Your task to perform on an android device: turn on wifi Image 0: 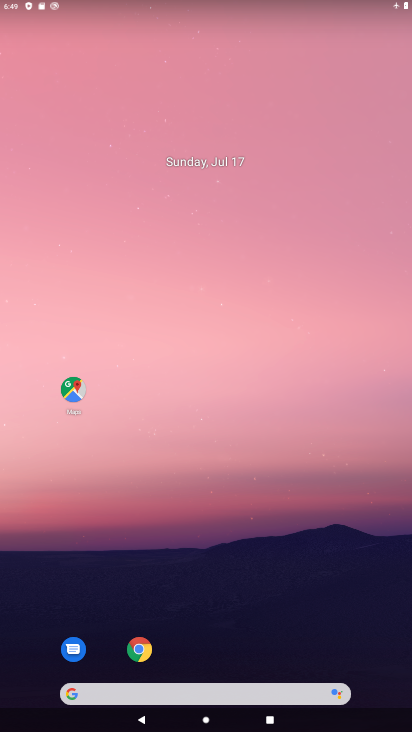
Step 0: drag from (258, 592) to (251, 117)
Your task to perform on an android device: turn on wifi Image 1: 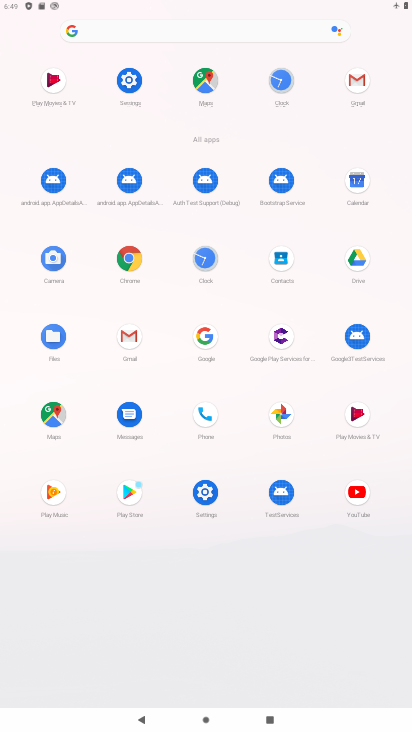
Step 1: click (126, 82)
Your task to perform on an android device: turn on wifi Image 2: 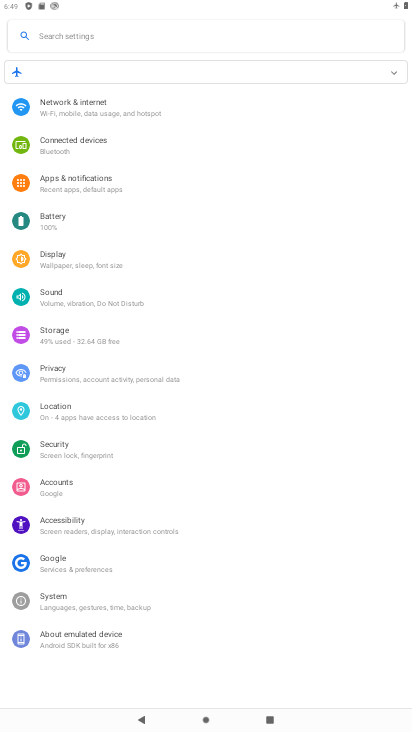
Step 2: click (80, 102)
Your task to perform on an android device: turn on wifi Image 3: 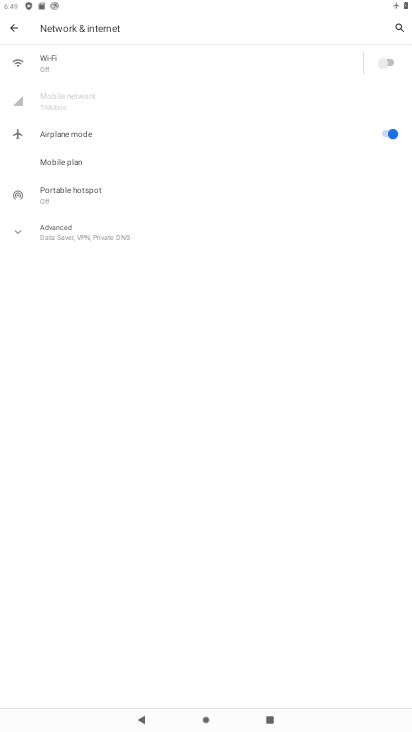
Step 3: click (380, 57)
Your task to perform on an android device: turn on wifi Image 4: 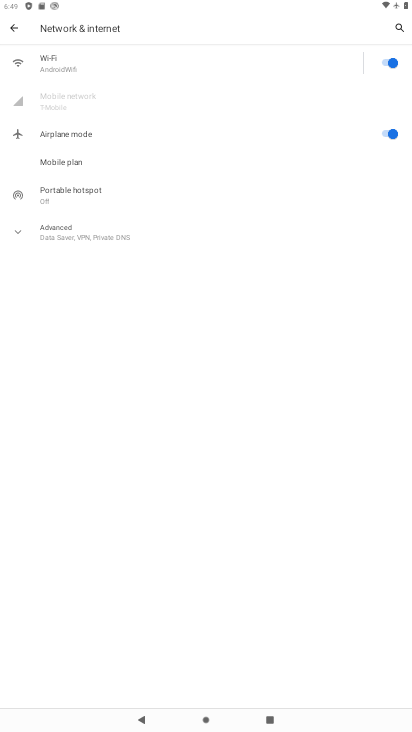
Step 4: task complete